Your task to perform on an android device: open a bookmark in the chrome app Image 0: 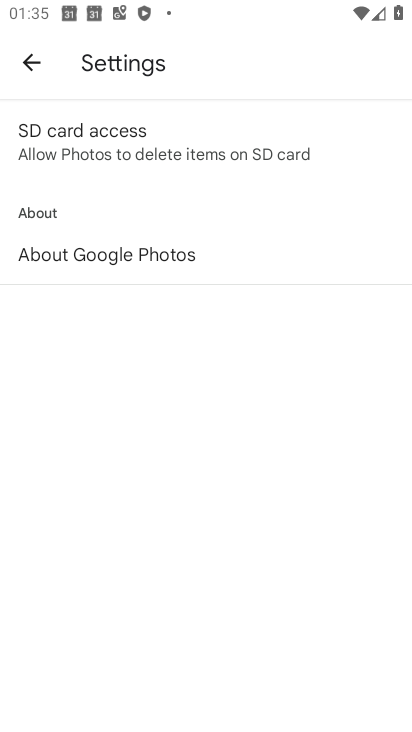
Step 0: press home button
Your task to perform on an android device: open a bookmark in the chrome app Image 1: 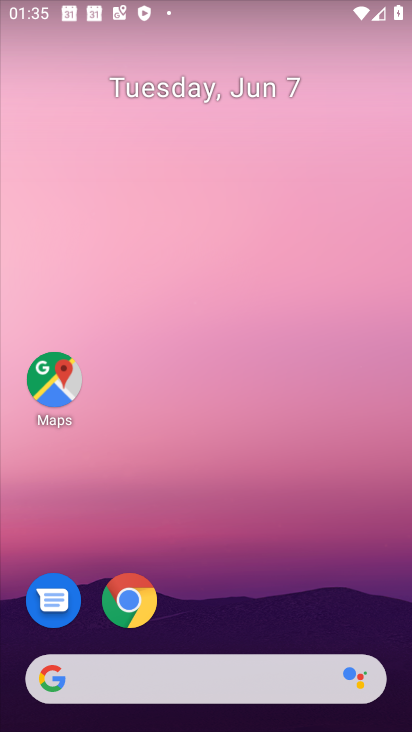
Step 1: click (130, 604)
Your task to perform on an android device: open a bookmark in the chrome app Image 2: 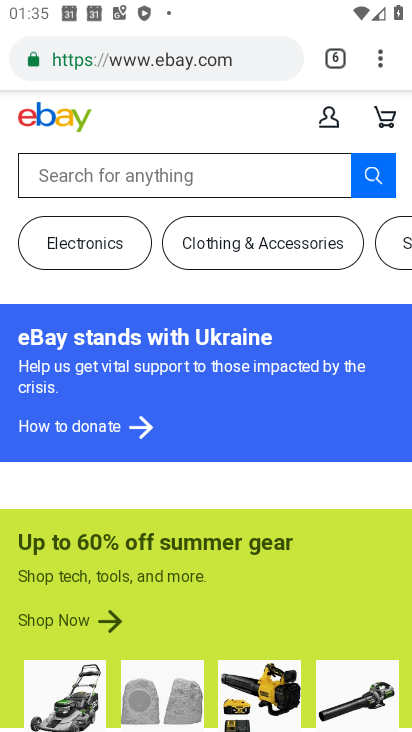
Step 2: click (382, 65)
Your task to perform on an android device: open a bookmark in the chrome app Image 3: 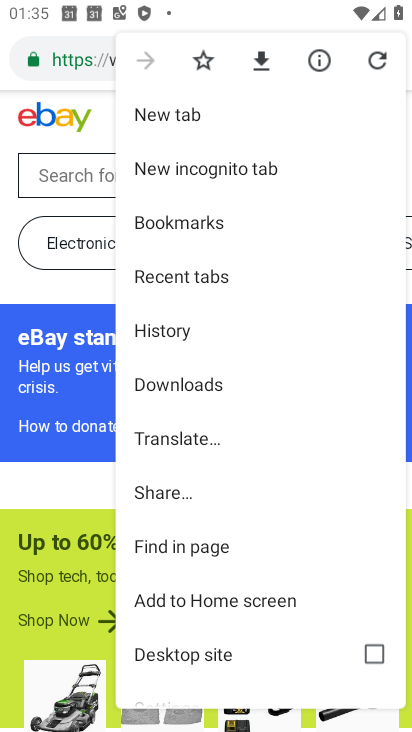
Step 3: click (186, 218)
Your task to perform on an android device: open a bookmark in the chrome app Image 4: 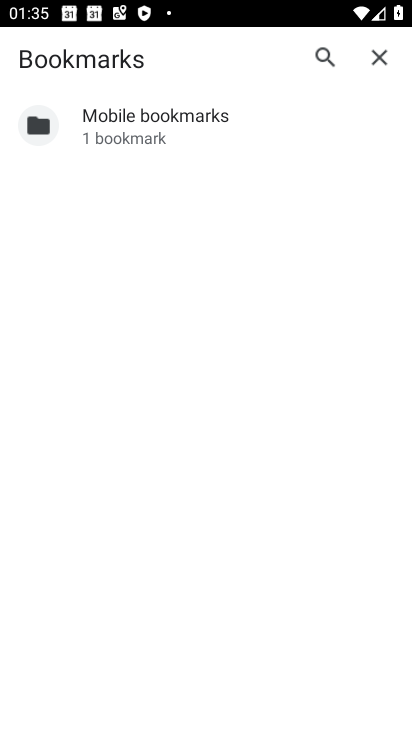
Step 4: click (127, 116)
Your task to perform on an android device: open a bookmark in the chrome app Image 5: 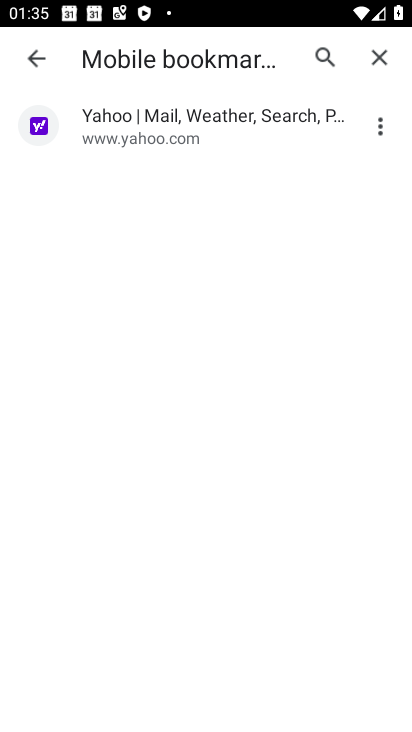
Step 5: click (135, 117)
Your task to perform on an android device: open a bookmark in the chrome app Image 6: 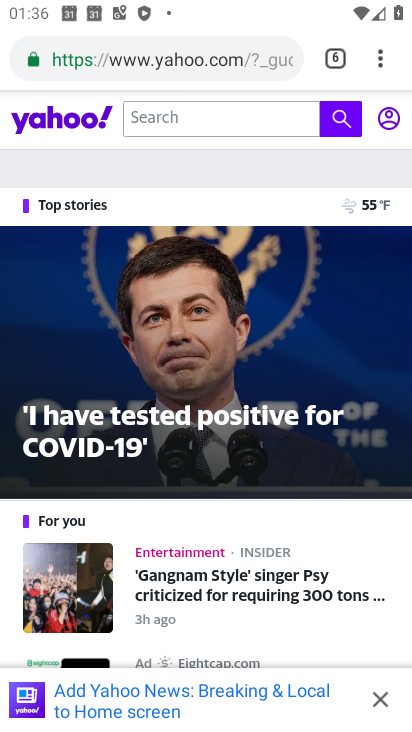
Step 6: task complete